Your task to perform on an android device: change text size in settings app Image 0: 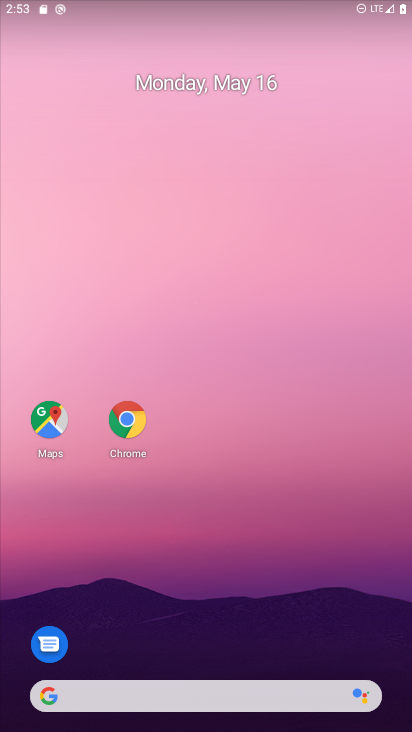
Step 0: click (180, 143)
Your task to perform on an android device: change text size in settings app Image 1: 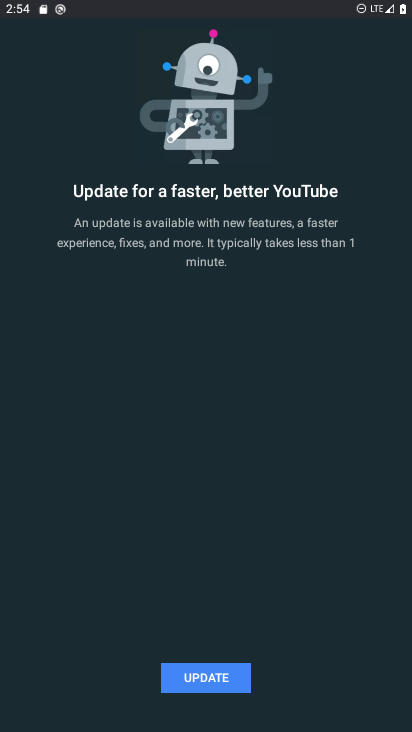
Step 1: press home button
Your task to perform on an android device: change text size in settings app Image 2: 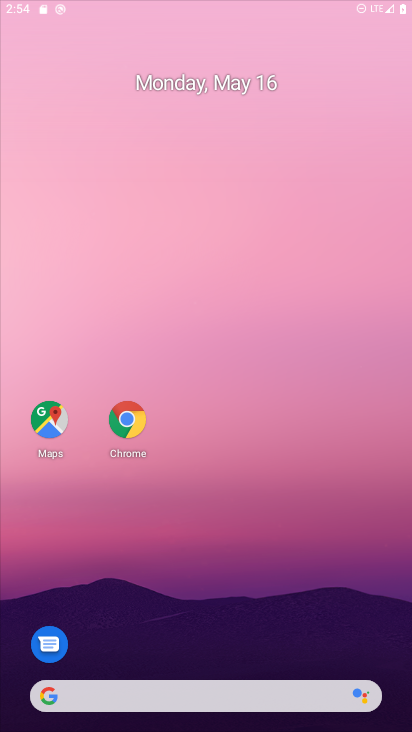
Step 2: drag from (178, 634) to (153, 172)
Your task to perform on an android device: change text size in settings app Image 3: 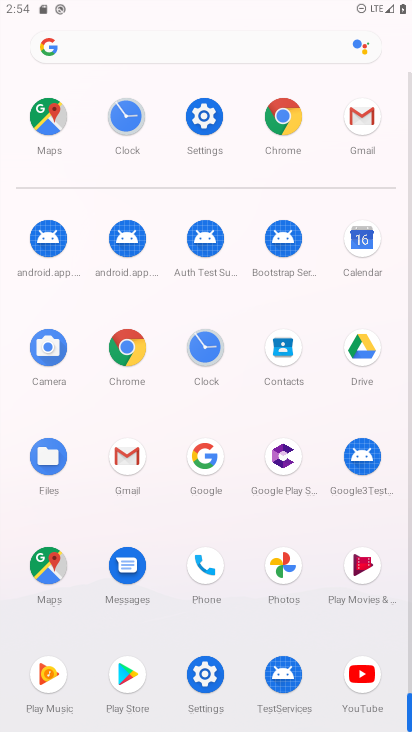
Step 3: click (221, 117)
Your task to perform on an android device: change text size in settings app Image 4: 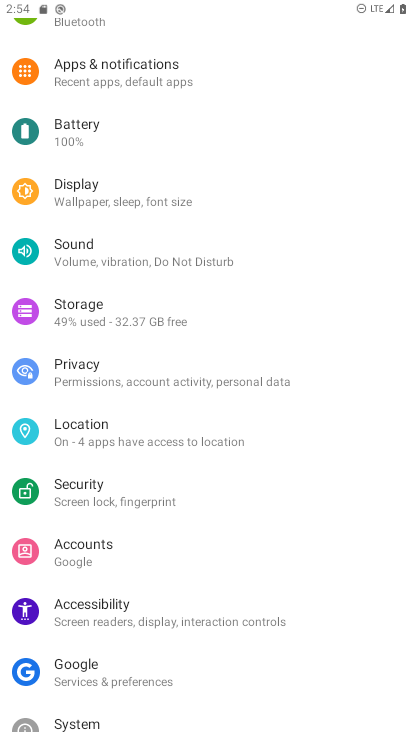
Step 4: drag from (210, 520) to (186, 331)
Your task to perform on an android device: change text size in settings app Image 5: 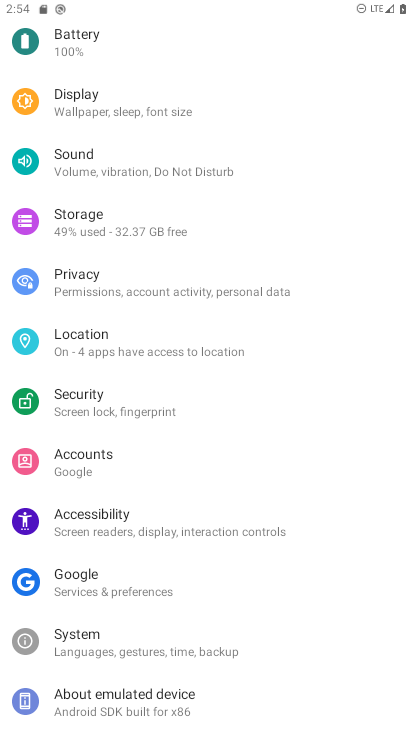
Step 5: click (89, 89)
Your task to perform on an android device: change text size in settings app Image 6: 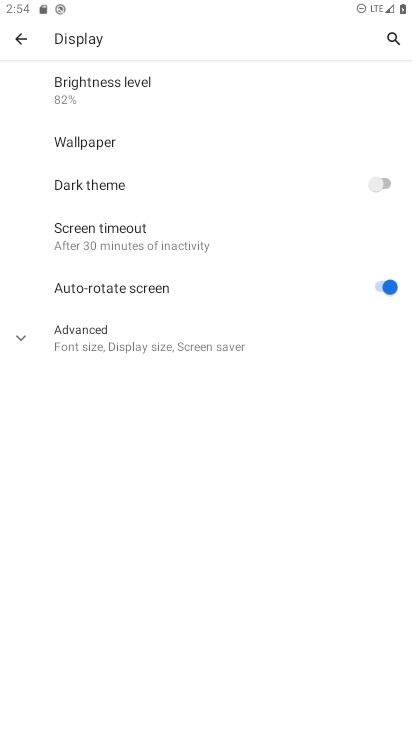
Step 6: click (138, 342)
Your task to perform on an android device: change text size in settings app Image 7: 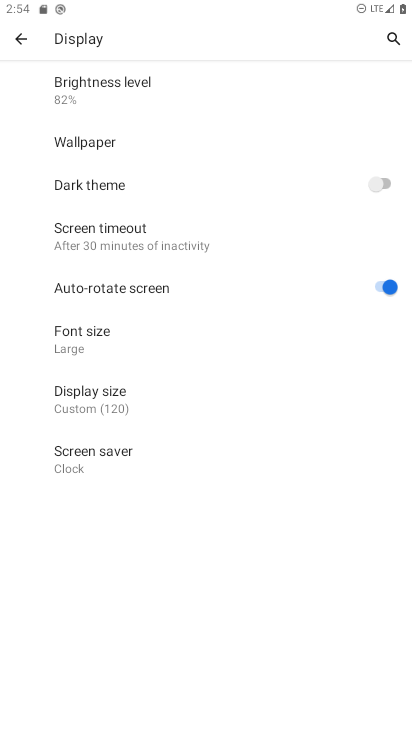
Step 7: click (121, 341)
Your task to perform on an android device: change text size in settings app Image 8: 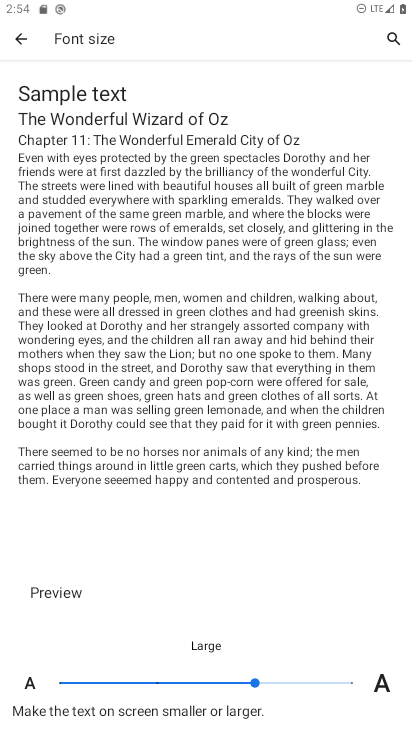
Step 8: drag from (200, 519) to (161, 318)
Your task to perform on an android device: change text size in settings app Image 9: 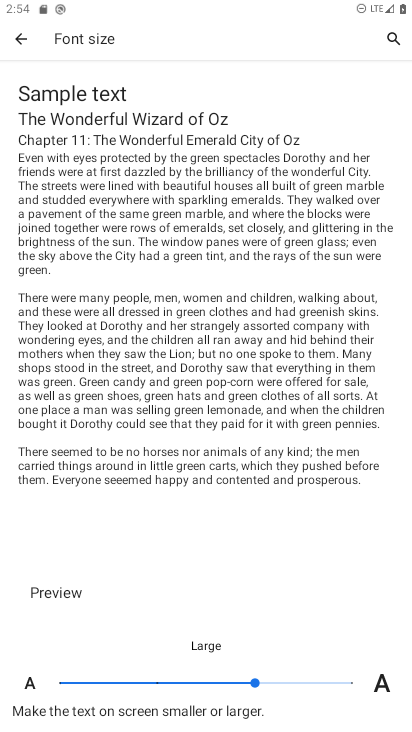
Step 9: drag from (168, 438) to (141, 256)
Your task to perform on an android device: change text size in settings app Image 10: 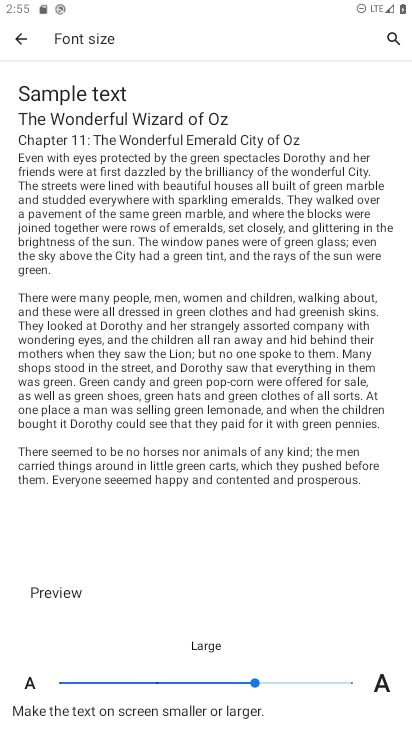
Step 10: drag from (250, 547) to (7, 246)
Your task to perform on an android device: change text size in settings app Image 11: 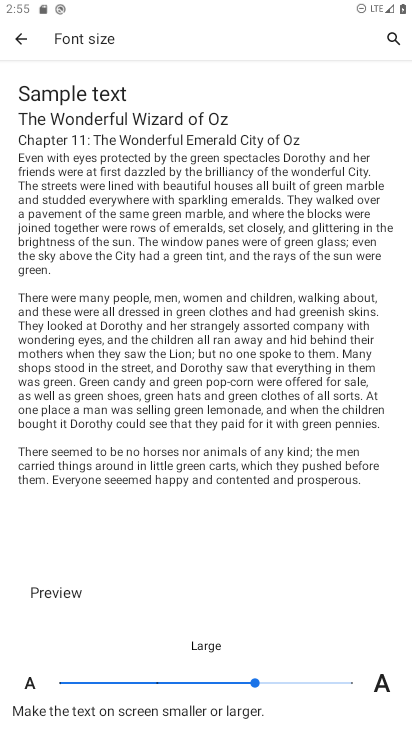
Step 11: drag from (173, 205) to (228, 701)
Your task to perform on an android device: change text size in settings app Image 12: 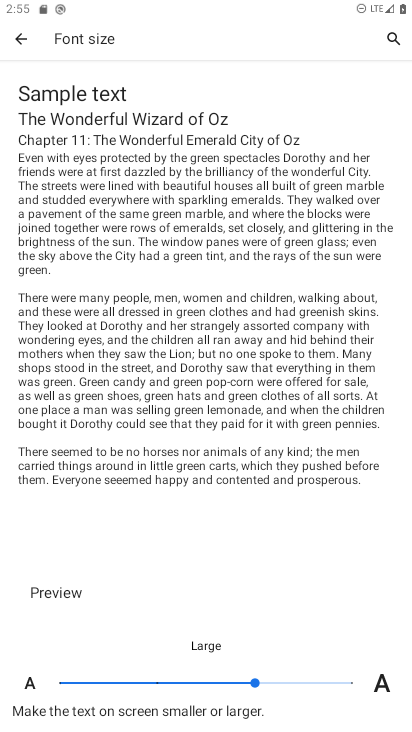
Step 12: drag from (184, 253) to (209, 544)
Your task to perform on an android device: change text size in settings app Image 13: 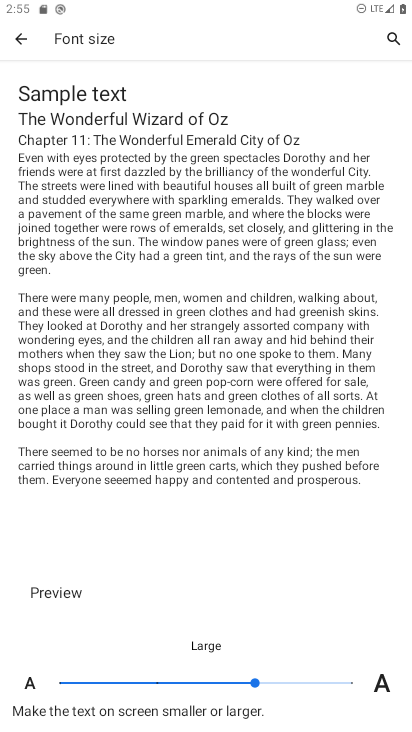
Step 13: drag from (160, 280) to (197, 587)
Your task to perform on an android device: change text size in settings app Image 14: 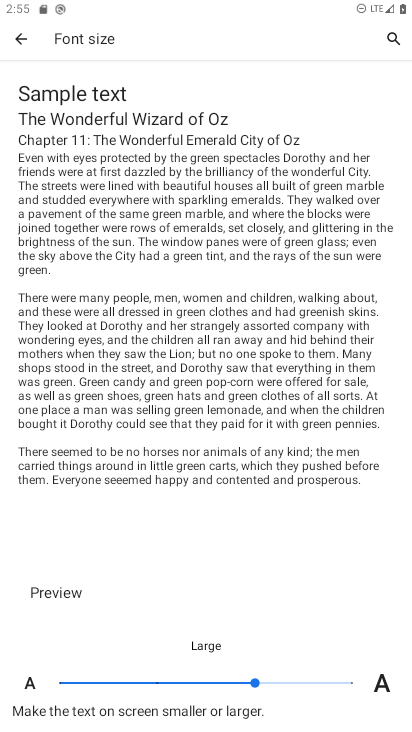
Step 14: drag from (147, 113) to (281, 516)
Your task to perform on an android device: change text size in settings app Image 15: 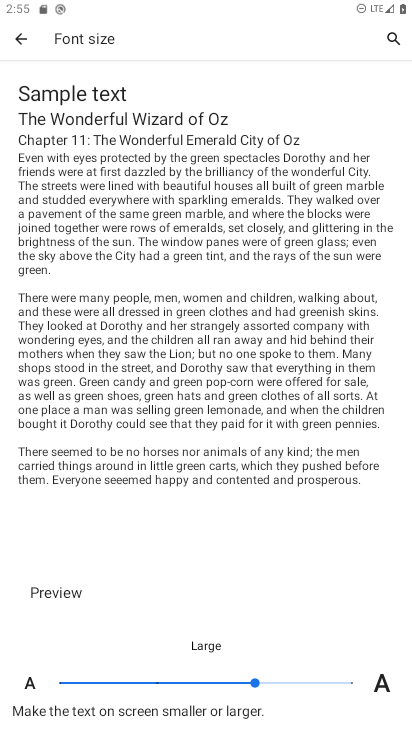
Step 15: drag from (97, 214) to (340, 585)
Your task to perform on an android device: change text size in settings app Image 16: 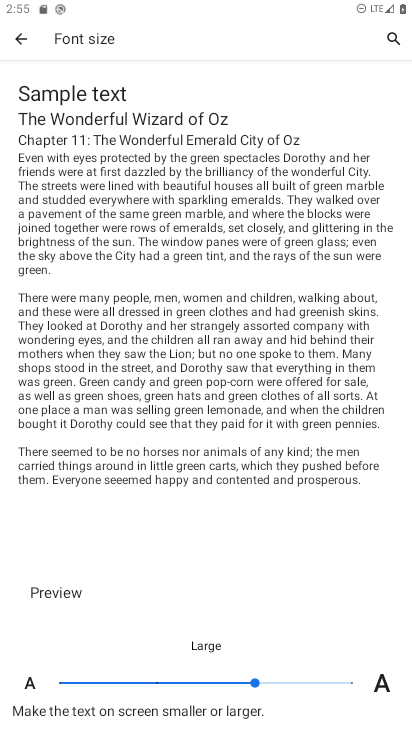
Step 16: click (146, 679)
Your task to perform on an android device: change text size in settings app Image 17: 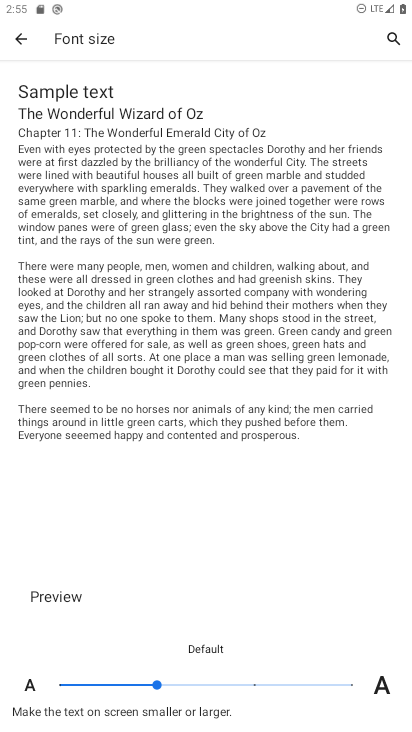
Step 17: task complete